Your task to perform on an android device: open device folders in google photos Image 0: 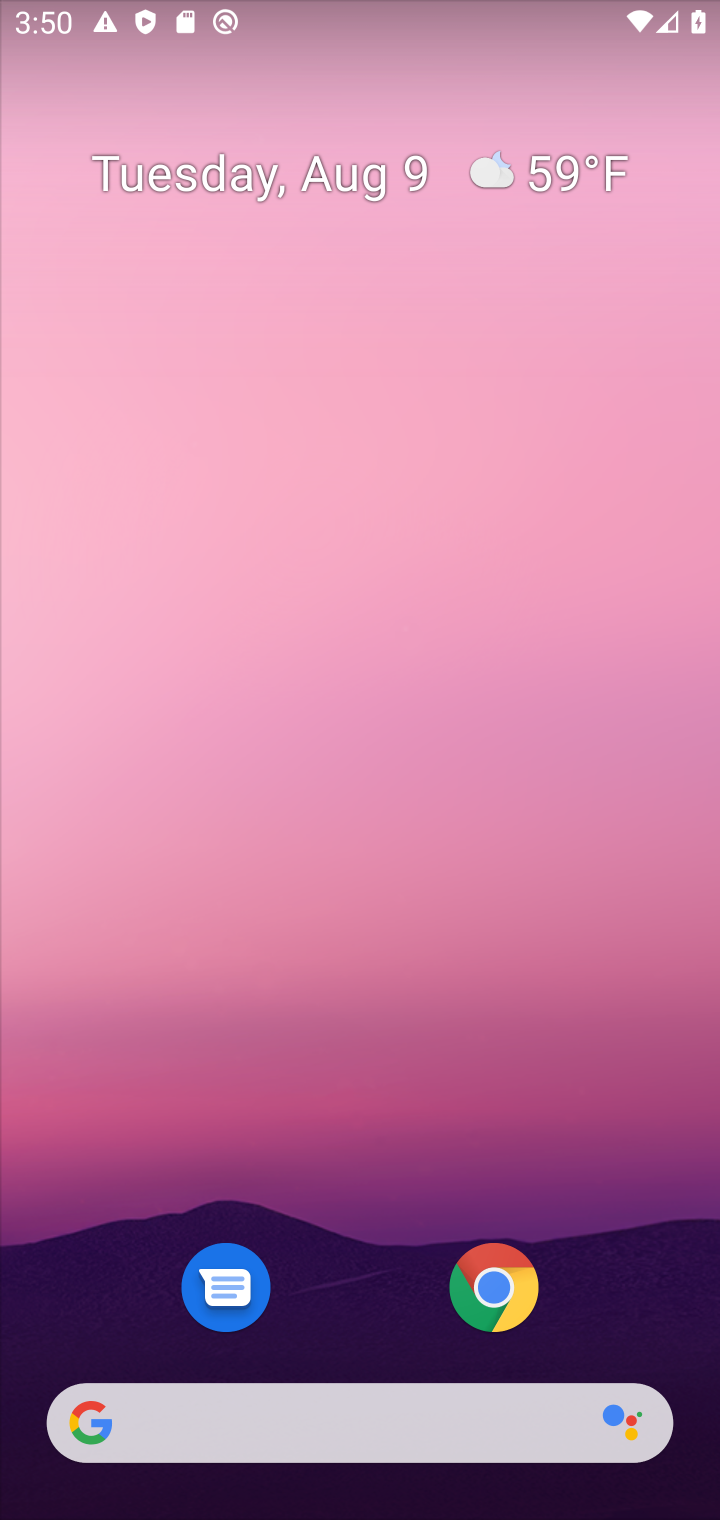
Step 0: drag from (290, 1137) to (403, 430)
Your task to perform on an android device: open device folders in google photos Image 1: 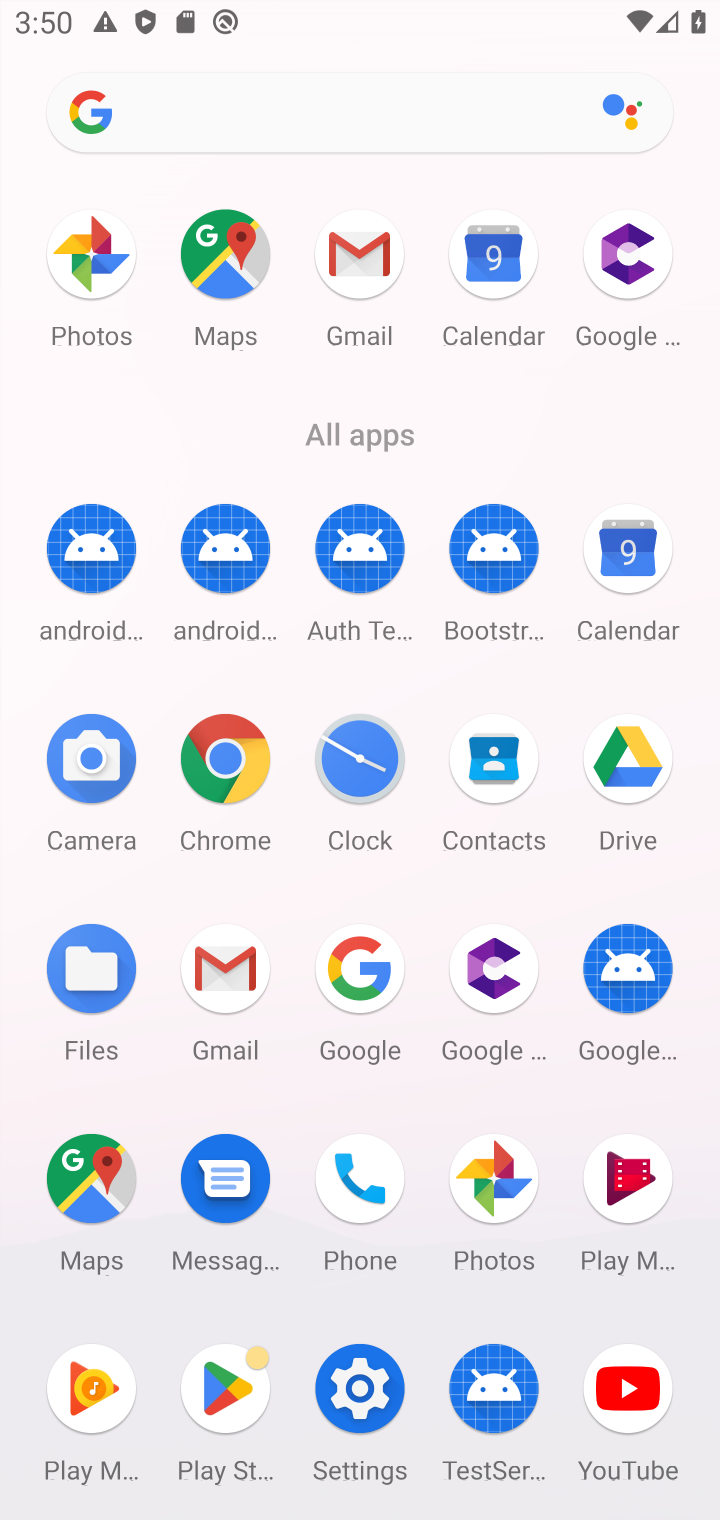
Step 1: click (493, 1180)
Your task to perform on an android device: open device folders in google photos Image 2: 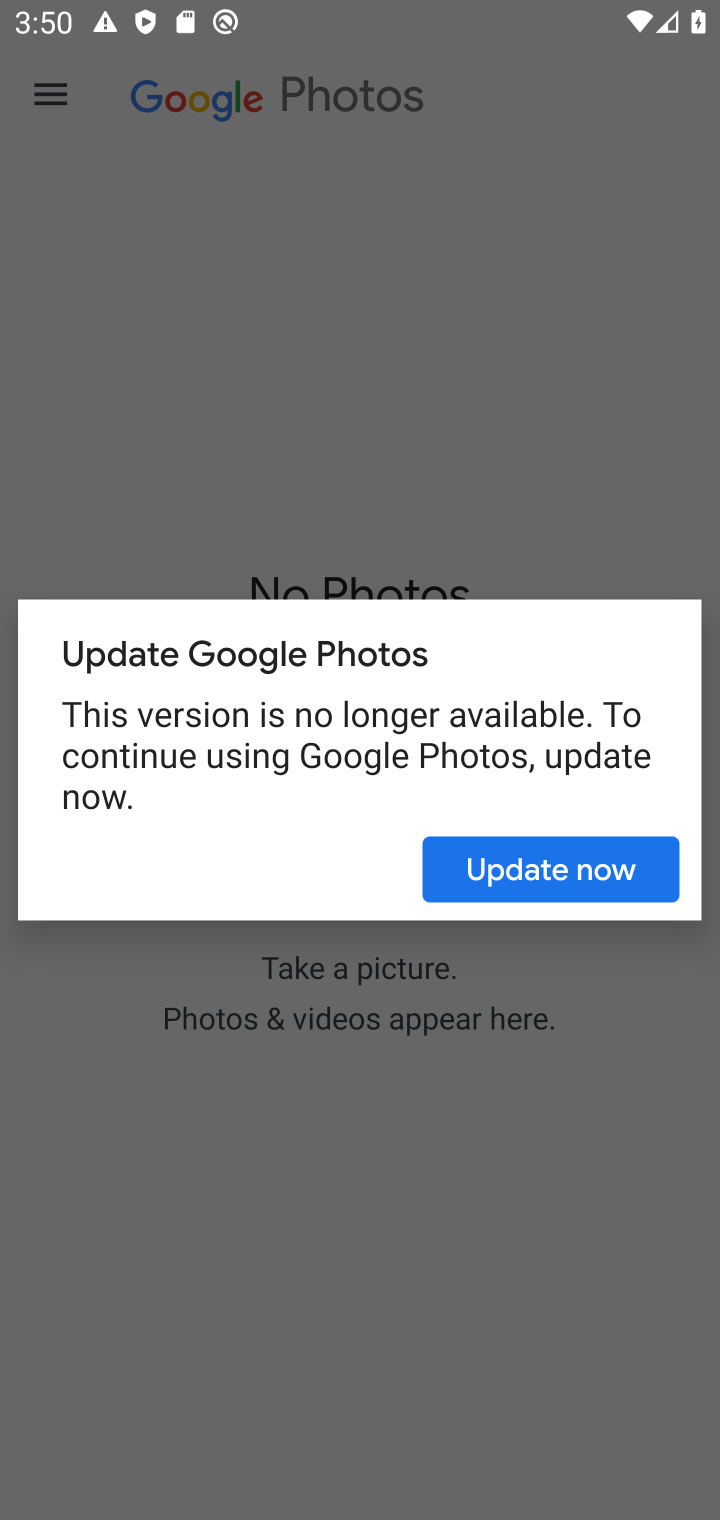
Step 2: press home button
Your task to perform on an android device: open device folders in google photos Image 3: 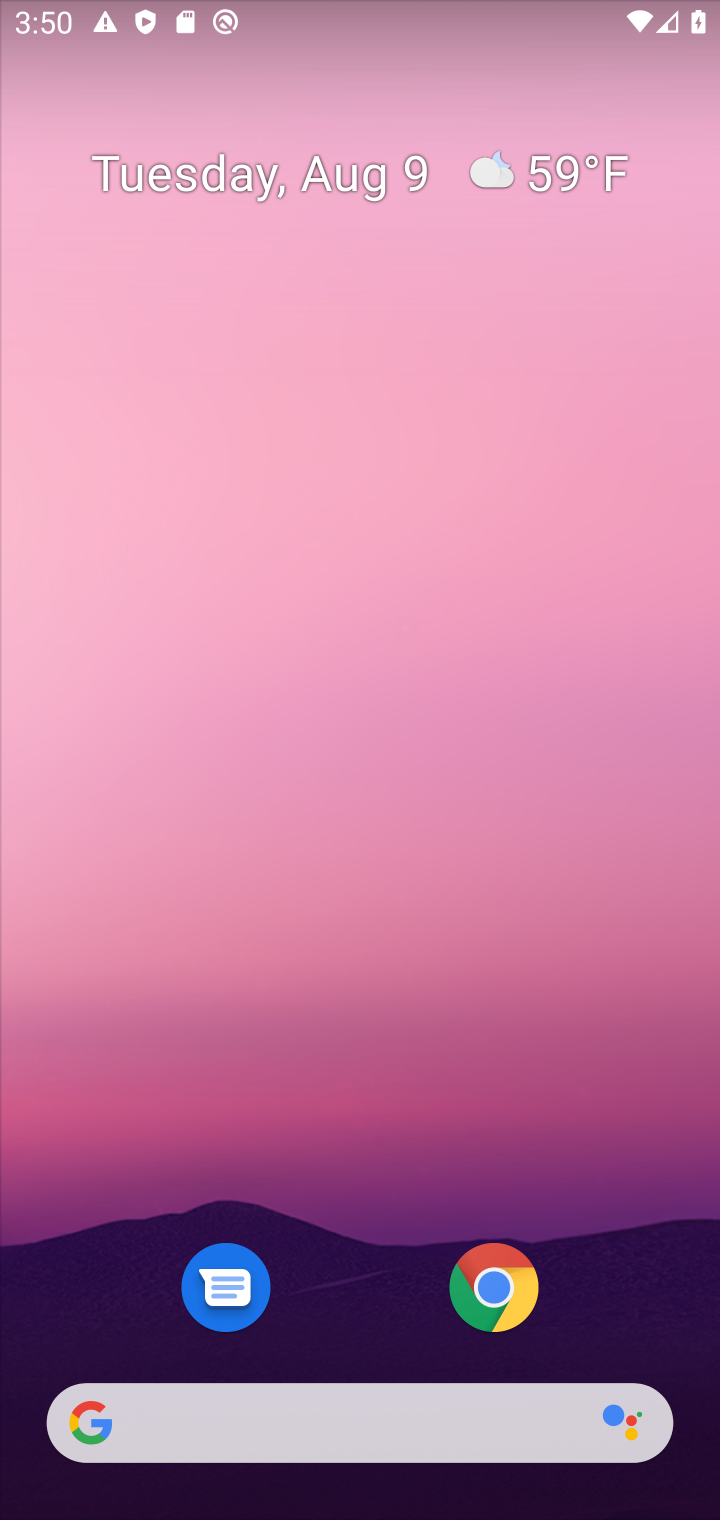
Step 3: drag from (369, 1108) to (504, 393)
Your task to perform on an android device: open device folders in google photos Image 4: 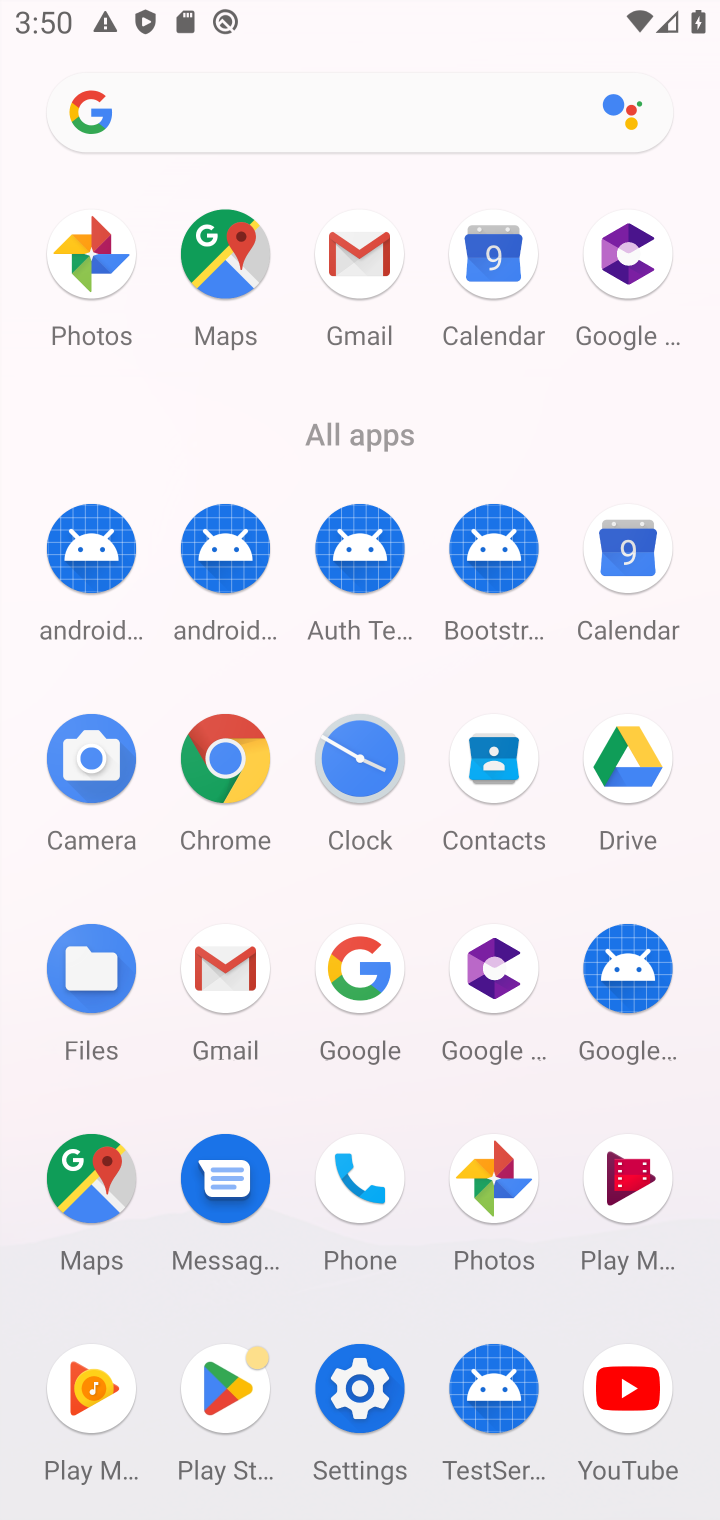
Step 4: click (500, 1170)
Your task to perform on an android device: open device folders in google photos Image 5: 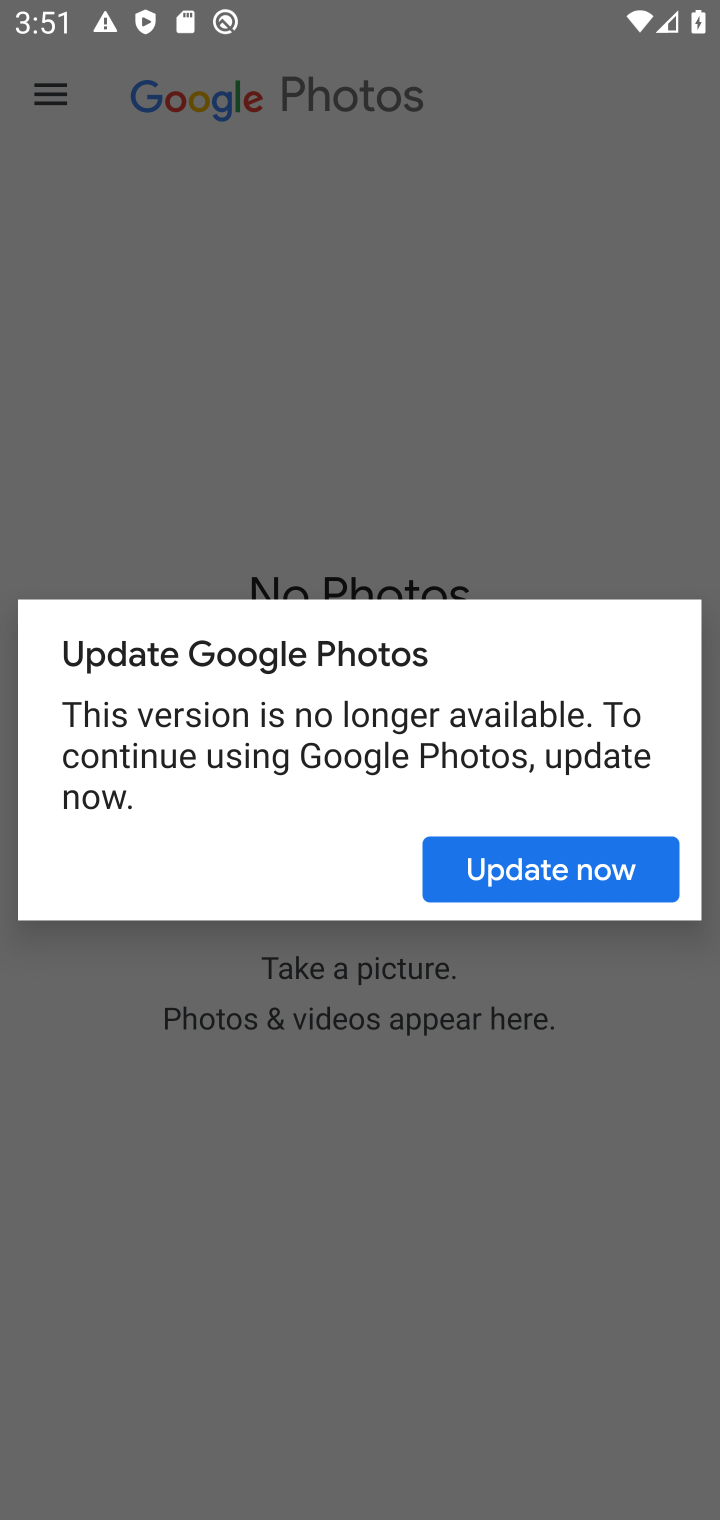
Step 5: click (502, 864)
Your task to perform on an android device: open device folders in google photos Image 6: 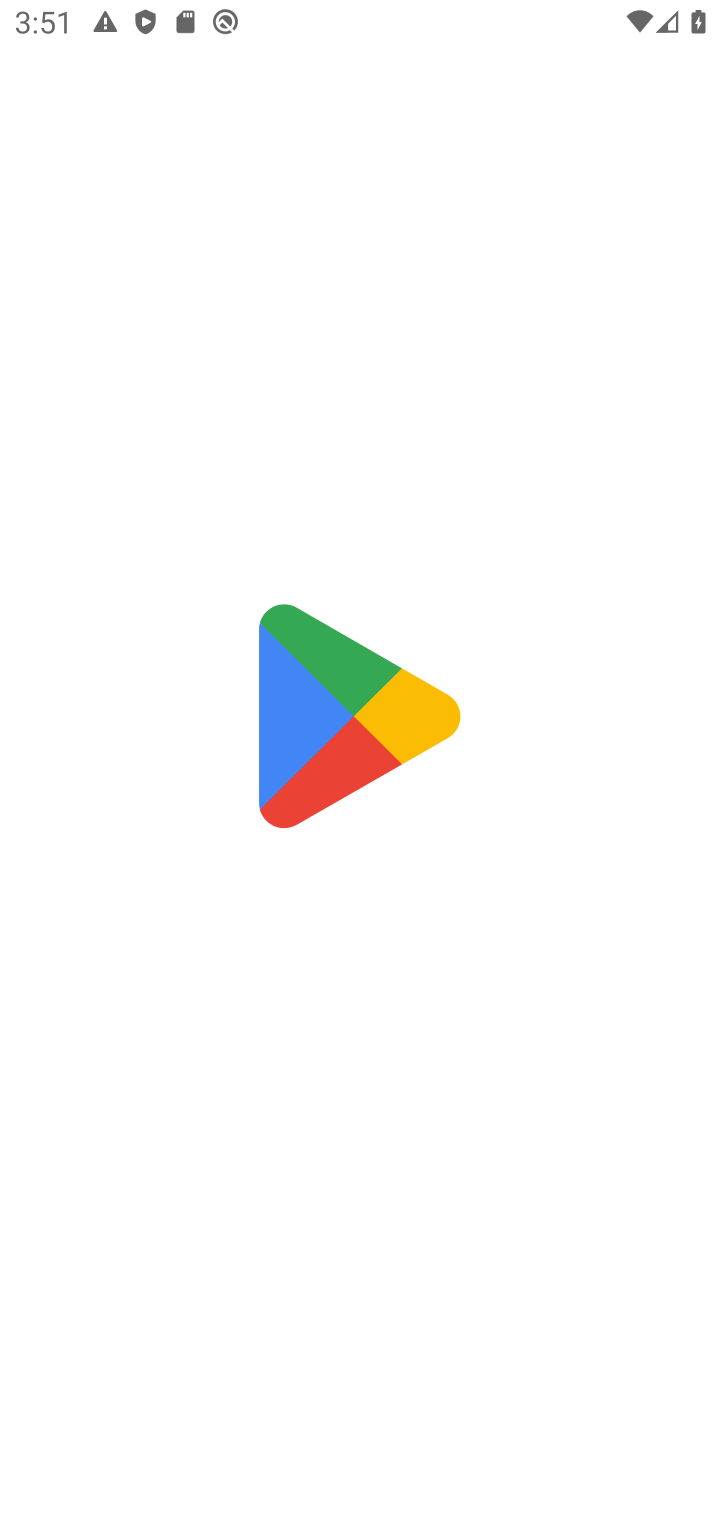
Step 6: task complete